Your task to perform on an android device: Open the web browser Image 0: 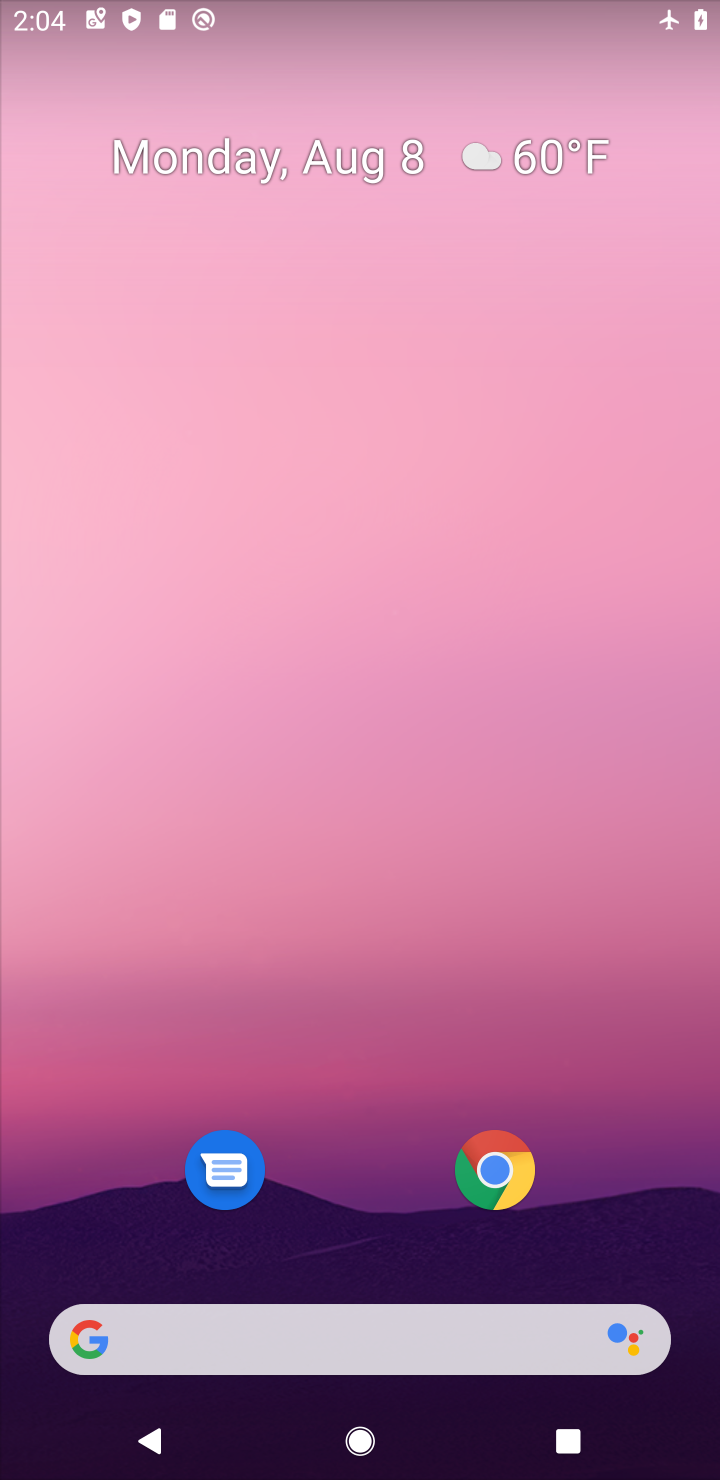
Step 0: click (500, 1200)
Your task to perform on an android device: Open the web browser Image 1: 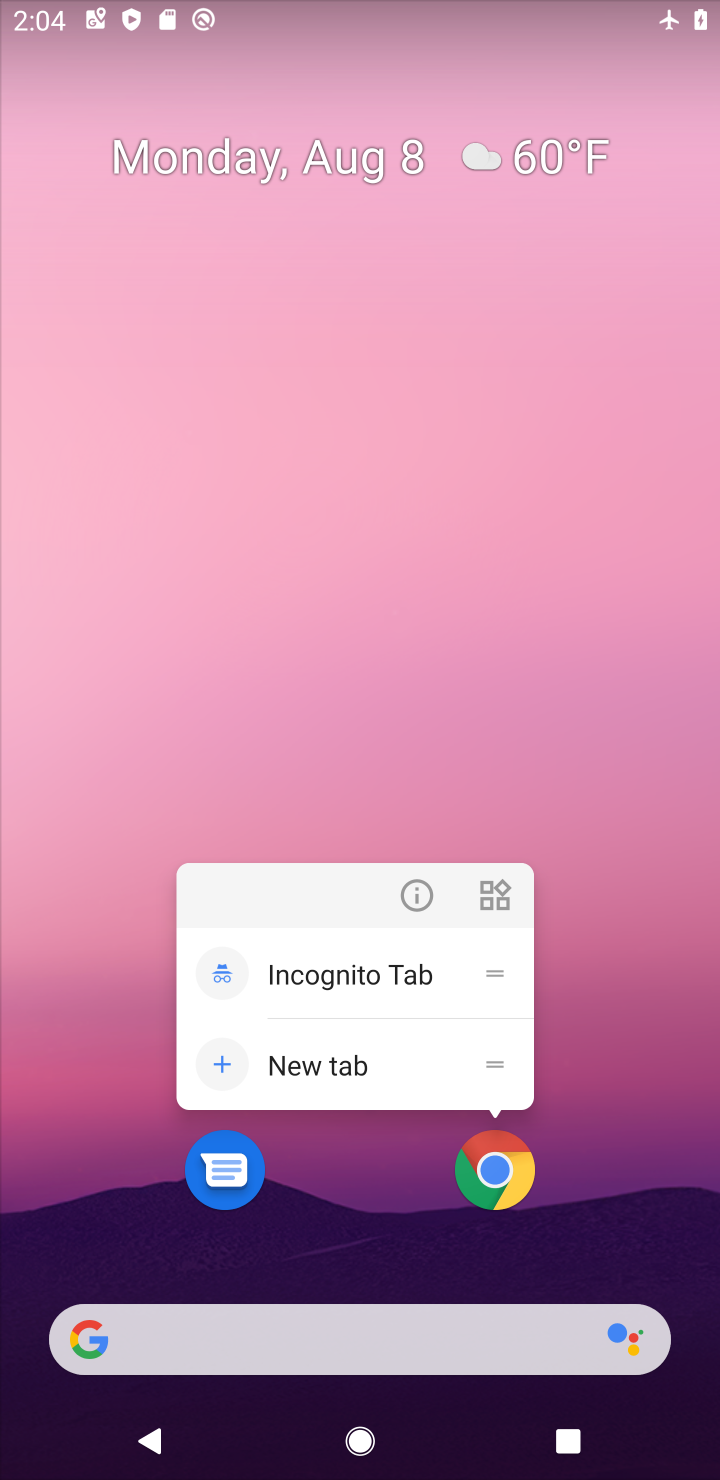
Step 1: click (500, 1200)
Your task to perform on an android device: Open the web browser Image 2: 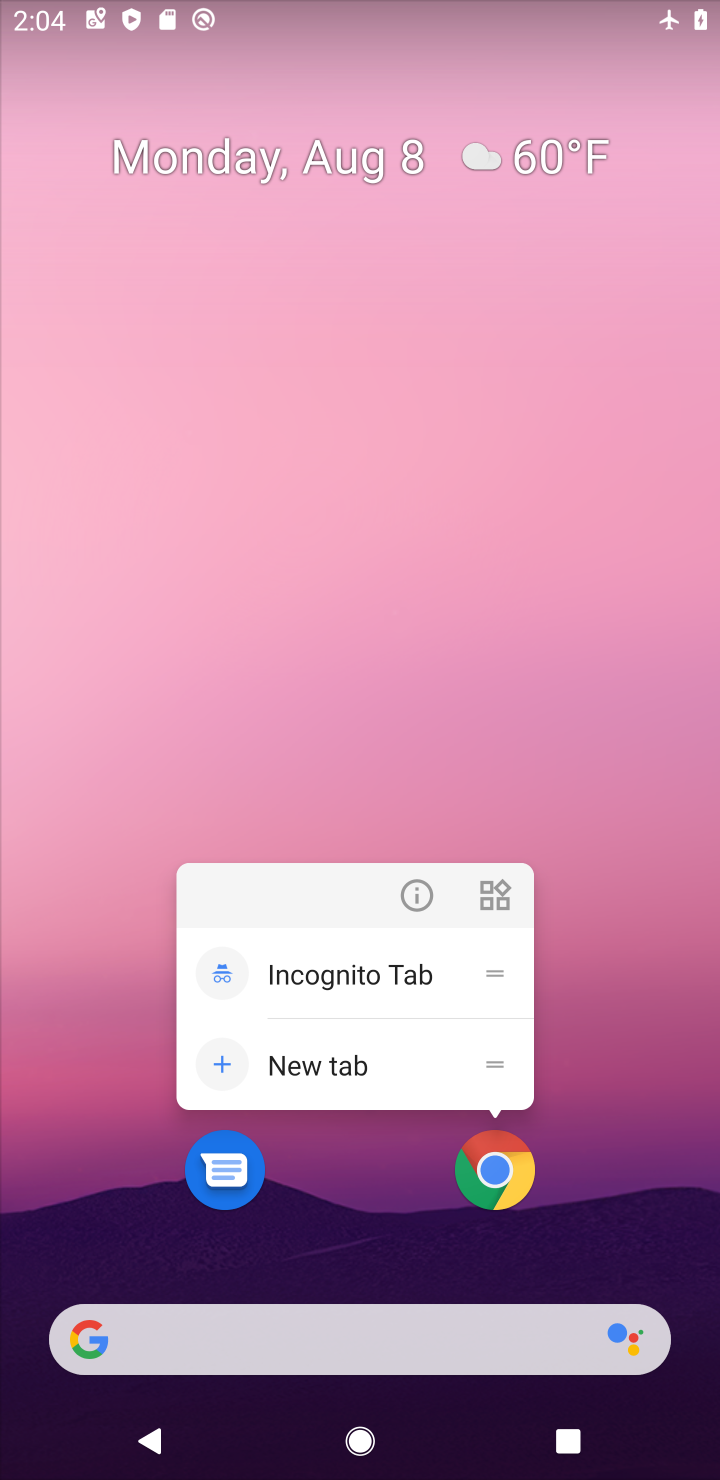
Step 2: click (476, 1198)
Your task to perform on an android device: Open the web browser Image 3: 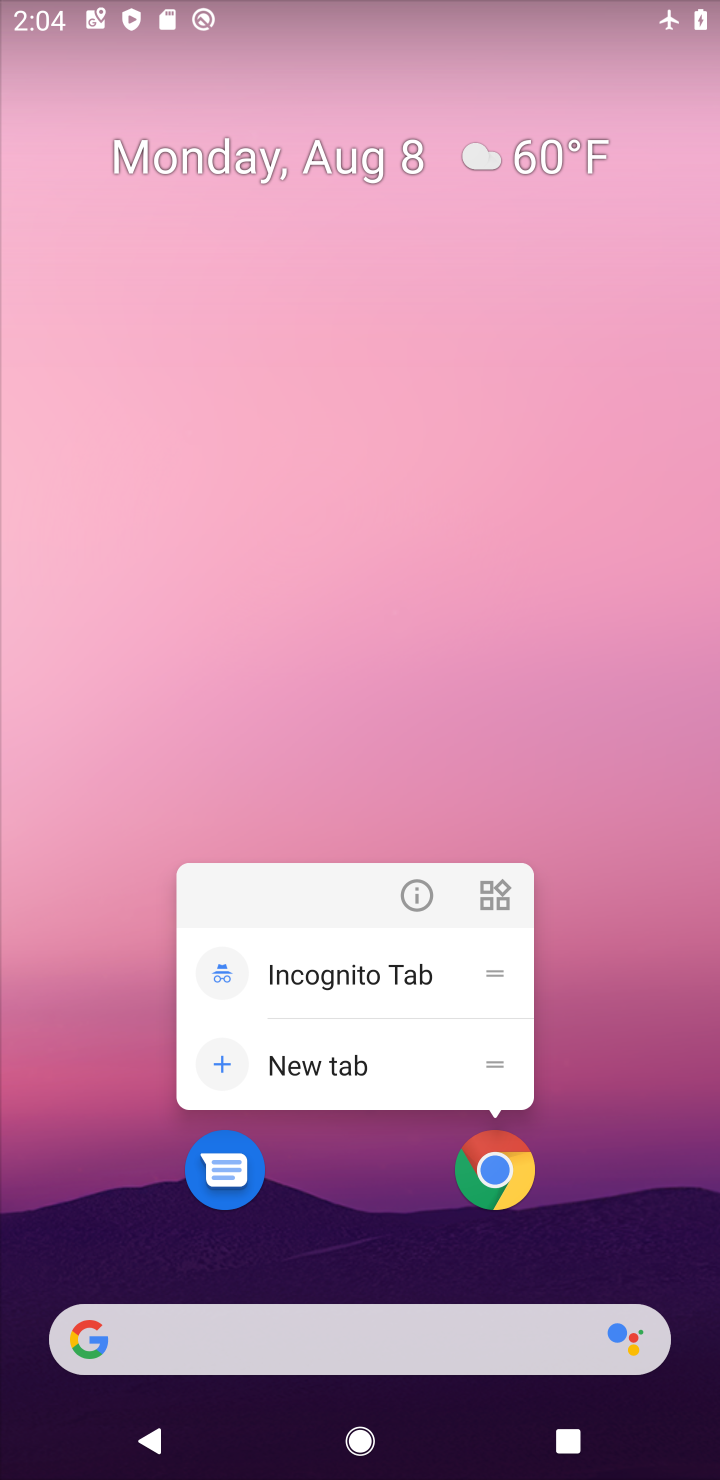
Step 3: click (489, 1182)
Your task to perform on an android device: Open the web browser Image 4: 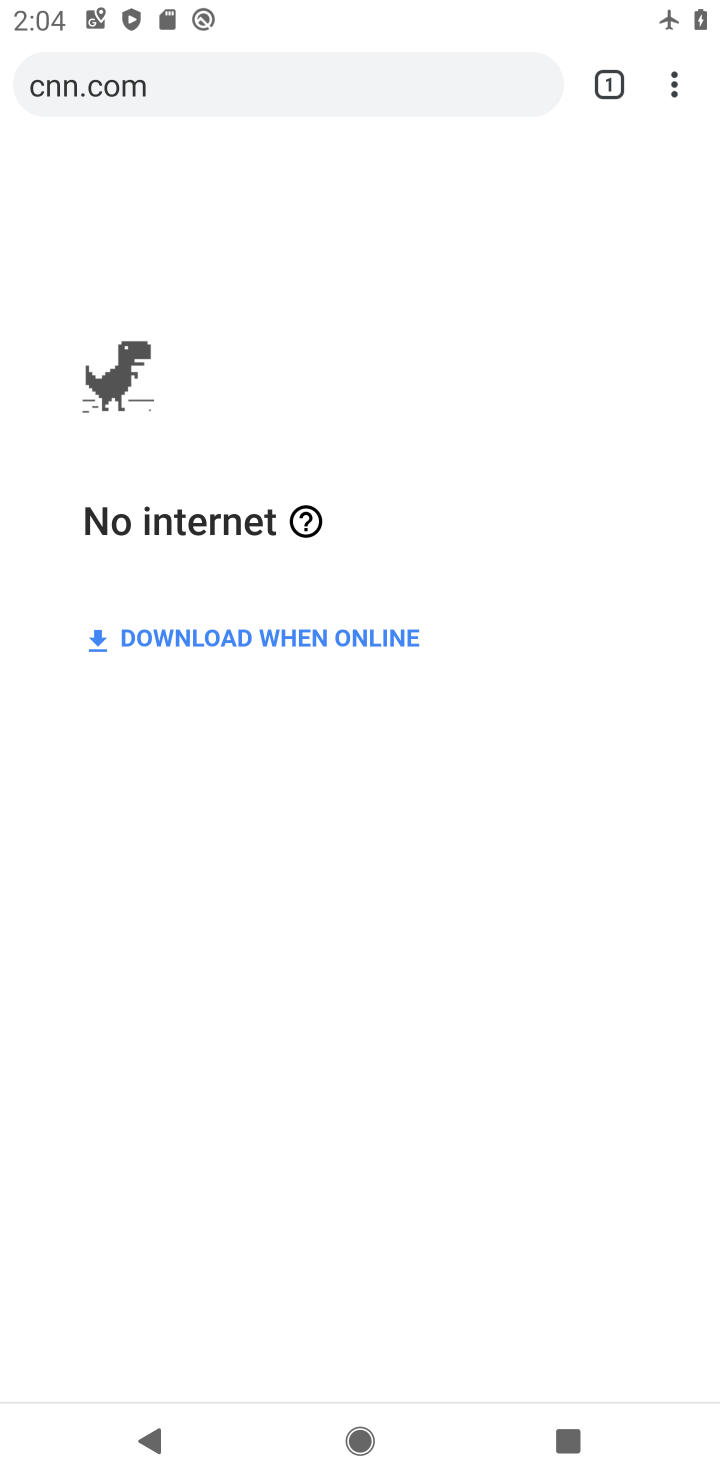
Step 4: task complete